Your task to perform on an android device: Show me productivity apps on the Play Store Image 0: 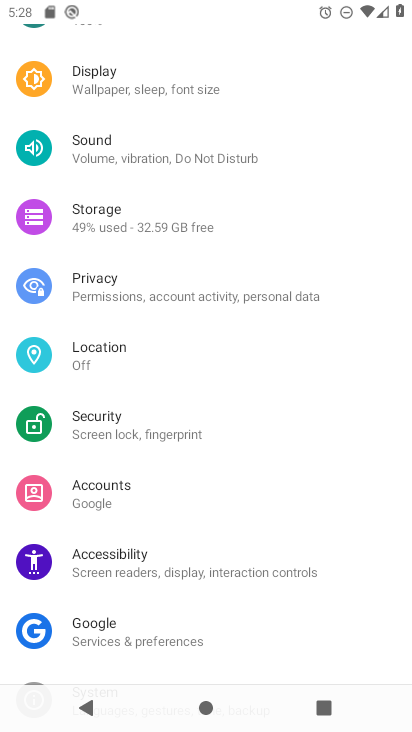
Step 0: press home button
Your task to perform on an android device: Show me productivity apps on the Play Store Image 1: 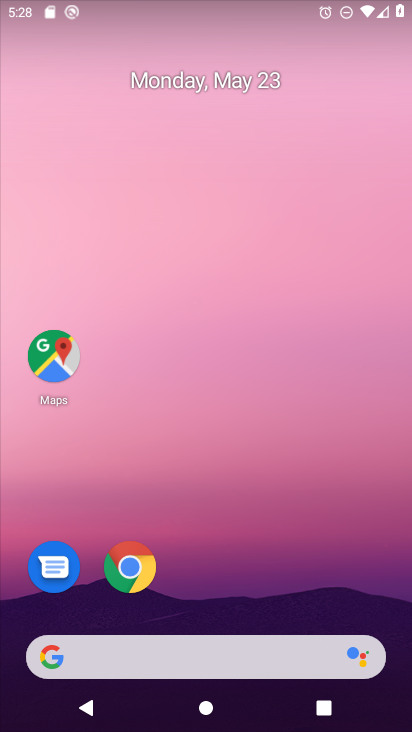
Step 1: drag from (246, 566) to (251, 64)
Your task to perform on an android device: Show me productivity apps on the Play Store Image 2: 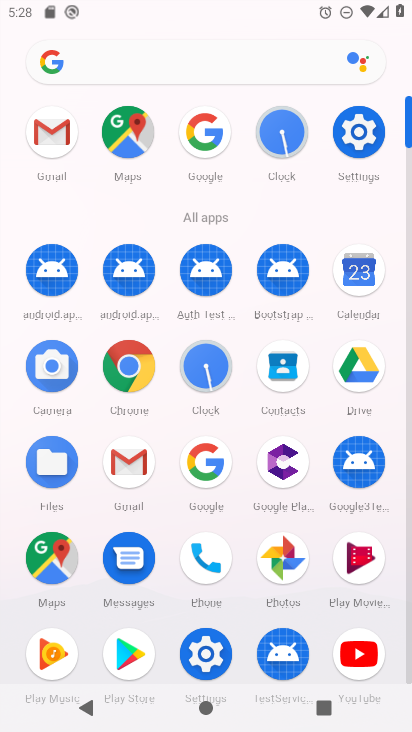
Step 2: click (133, 657)
Your task to perform on an android device: Show me productivity apps on the Play Store Image 3: 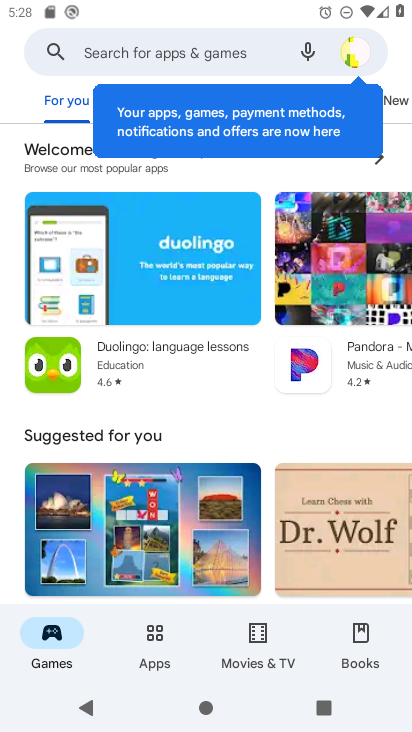
Step 3: click (154, 636)
Your task to perform on an android device: Show me productivity apps on the Play Store Image 4: 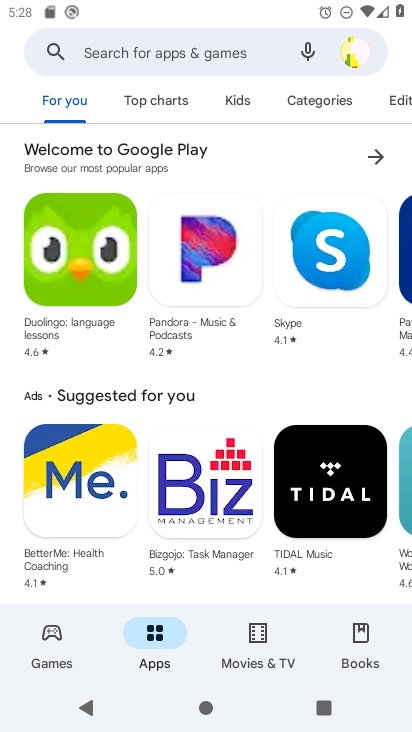
Step 4: click (327, 96)
Your task to perform on an android device: Show me productivity apps on the Play Store Image 5: 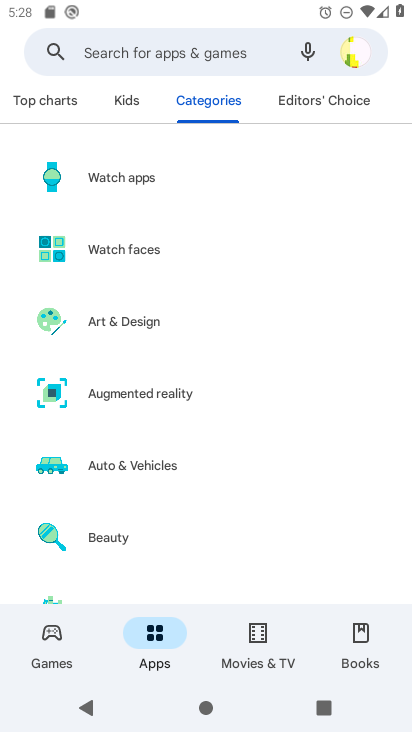
Step 5: drag from (116, 376) to (147, 298)
Your task to perform on an android device: Show me productivity apps on the Play Store Image 6: 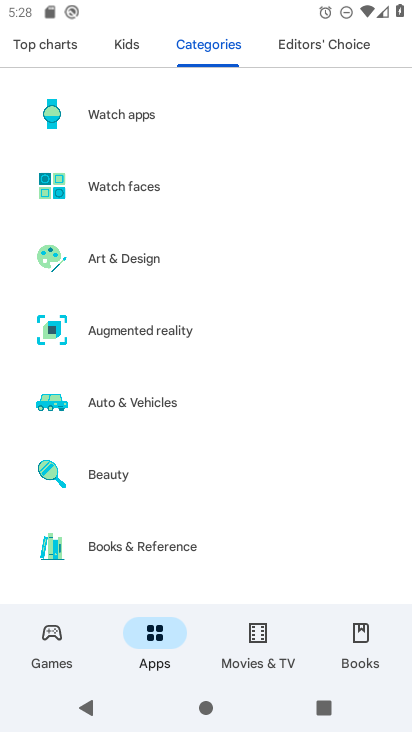
Step 6: drag from (99, 372) to (159, 284)
Your task to perform on an android device: Show me productivity apps on the Play Store Image 7: 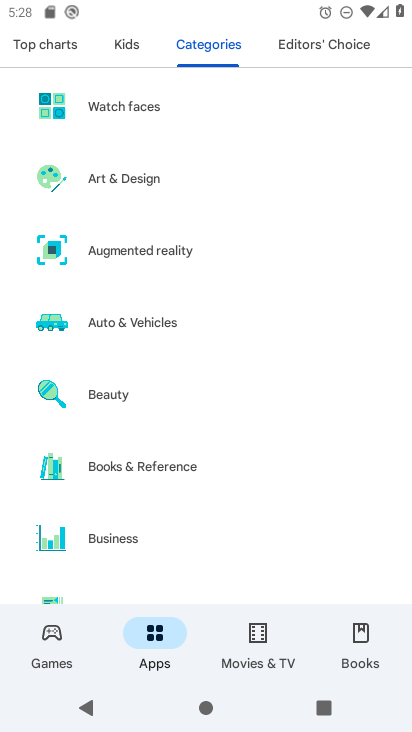
Step 7: drag from (108, 359) to (163, 277)
Your task to perform on an android device: Show me productivity apps on the Play Store Image 8: 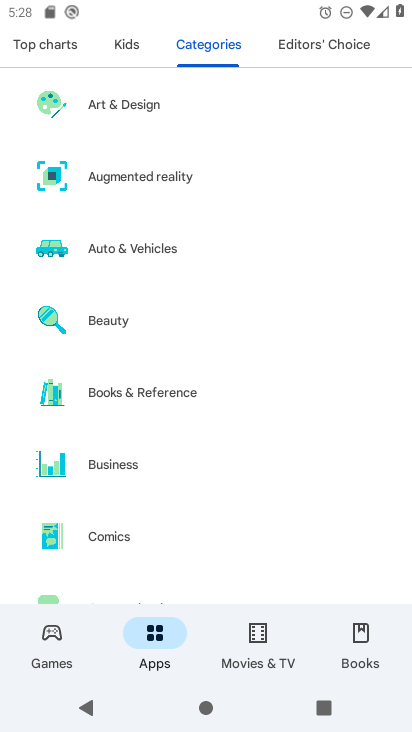
Step 8: drag from (111, 358) to (154, 282)
Your task to perform on an android device: Show me productivity apps on the Play Store Image 9: 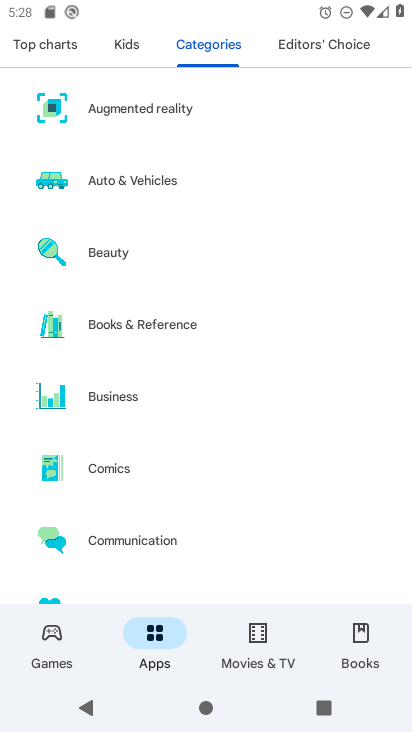
Step 9: drag from (98, 361) to (151, 278)
Your task to perform on an android device: Show me productivity apps on the Play Store Image 10: 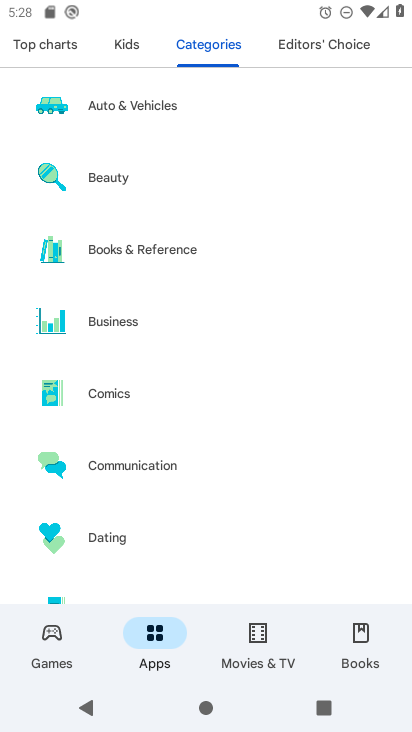
Step 10: drag from (118, 349) to (167, 273)
Your task to perform on an android device: Show me productivity apps on the Play Store Image 11: 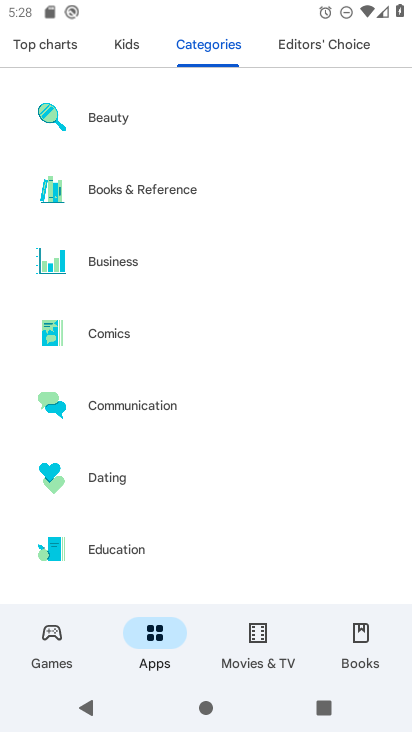
Step 11: drag from (106, 374) to (157, 293)
Your task to perform on an android device: Show me productivity apps on the Play Store Image 12: 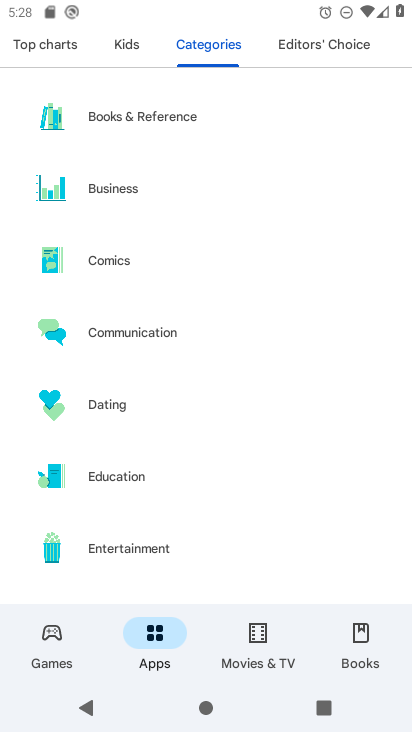
Step 12: drag from (113, 371) to (168, 287)
Your task to perform on an android device: Show me productivity apps on the Play Store Image 13: 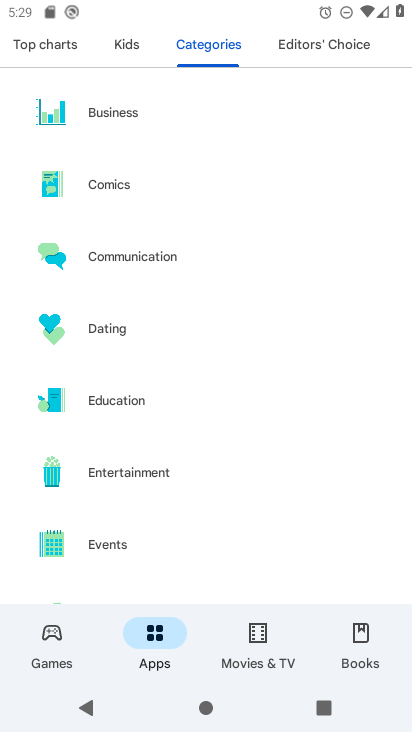
Step 13: drag from (105, 363) to (171, 269)
Your task to perform on an android device: Show me productivity apps on the Play Store Image 14: 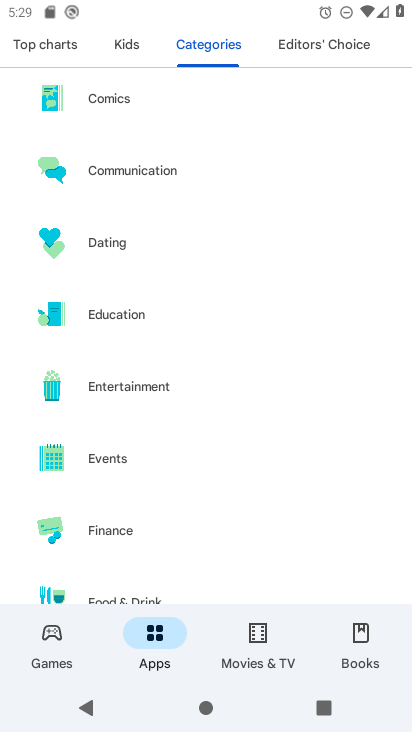
Step 14: drag from (103, 362) to (186, 266)
Your task to perform on an android device: Show me productivity apps on the Play Store Image 15: 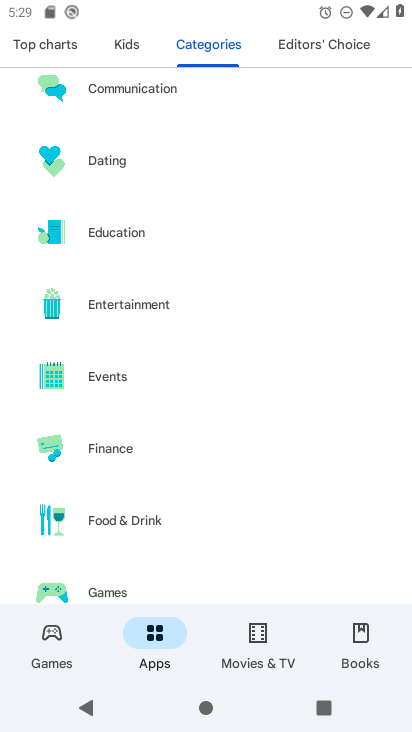
Step 15: drag from (102, 414) to (178, 321)
Your task to perform on an android device: Show me productivity apps on the Play Store Image 16: 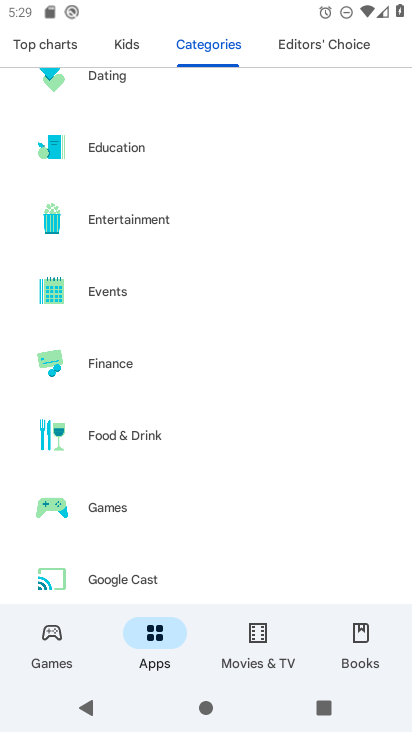
Step 16: drag from (105, 408) to (180, 313)
Your task to perform on an android device: Show me productivity apps on the Play Store Image 17: 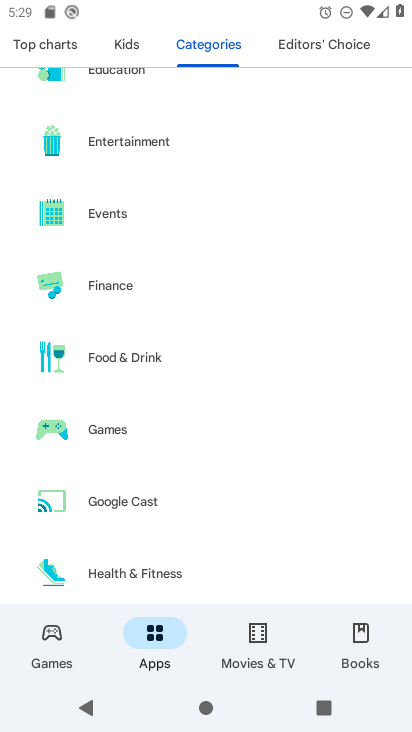
Step 17: drag from (108, 397) to (165, 318)
Your task to perform on an android device: Show me productivity apps on the Play Store Image 18: 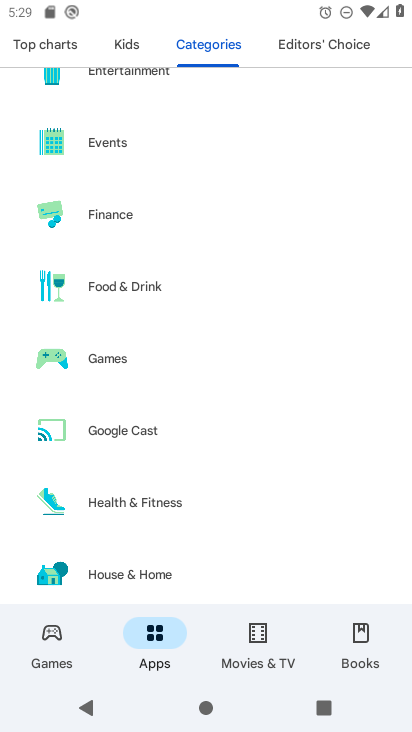
Step 18: drag from (101, 385) to (153, 304)
Your task to perform on an android device: Show me productivity apps on the Play Store Image 19: 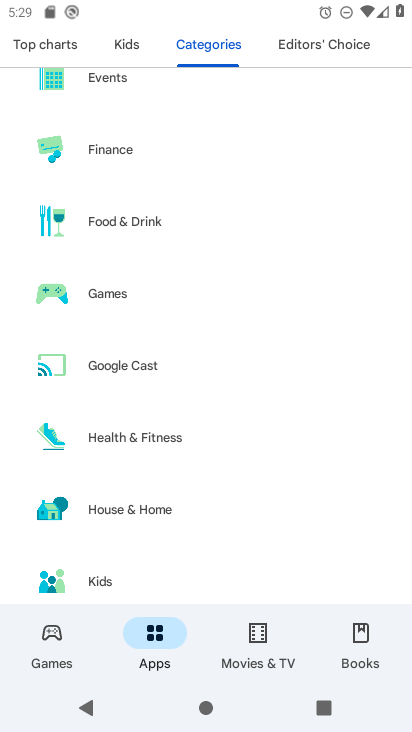
Step 19: drag from (103, 409) to (180, 309)
Your task to perform on an android device: Show me productivity apps on the Play Store Image 20: 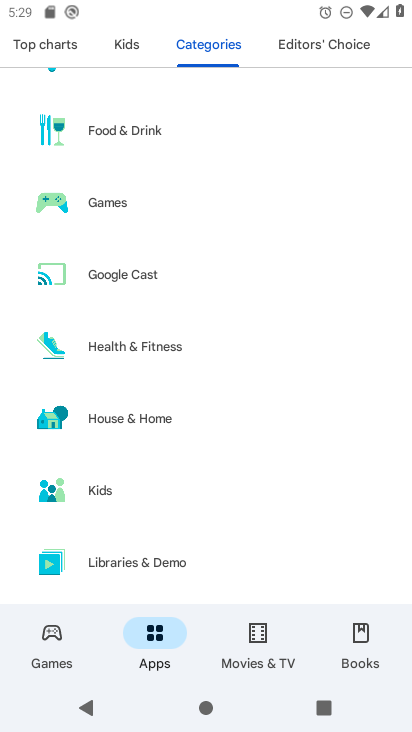
Step 20: drag from (109, 398) to (178, 298)
Your task to perform on an android device: Show me productivity apps on the Play Store Image 21: 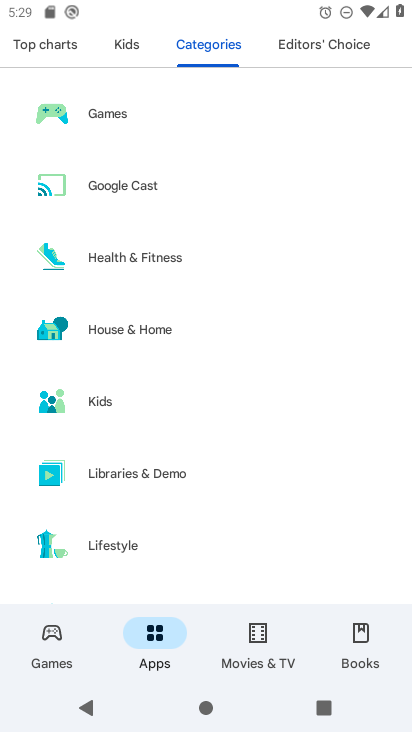
Step 21: drag from (105, 367) to (181, 281)
Your task to perform on an android device: Show me productivity apps on the Play Store Image 22: 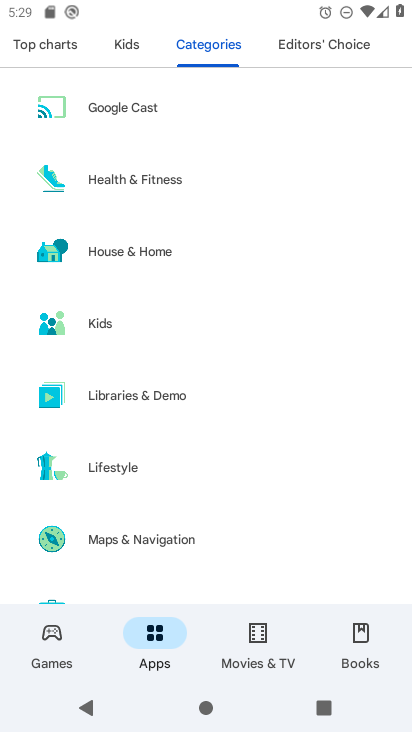
Step 22: drag from (101, 366) to (174, 295)
Your task to perform on an android device: Show me productivity apps on the Play Store Image 23: 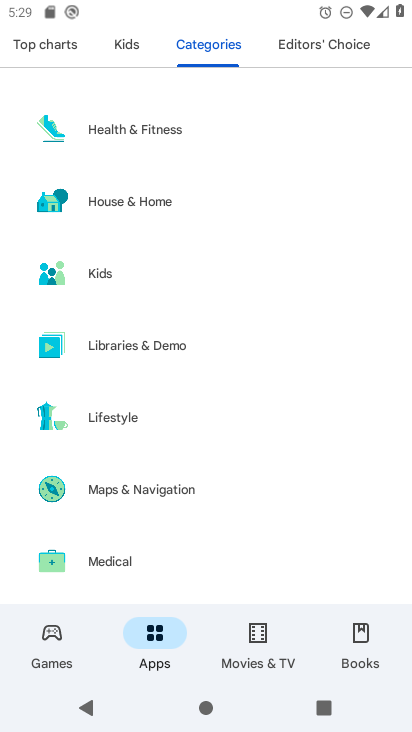
Step 23: drag from (96, 379) to (164, 288)
Your task to perform on an android device: Show me productivity apps on the Play Store Image 24: 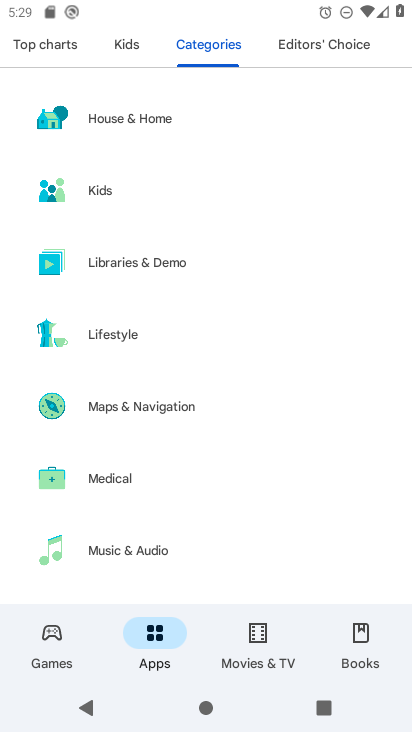
Step 24: drag from (105, 376) to (160, 294)
Your task to perform on an android device: Show me productivity apps on the Play Store Image 25: 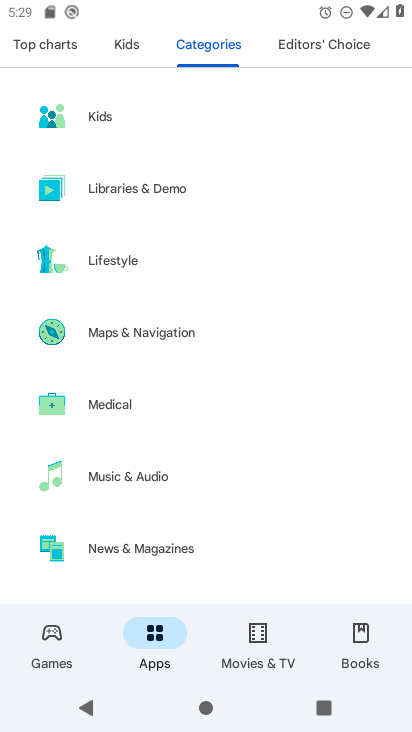
Step 25: drag from (104, 379) to (174, 281)
Your task to perform on an android device: Show me productivity apps on the Play Store Image 26: 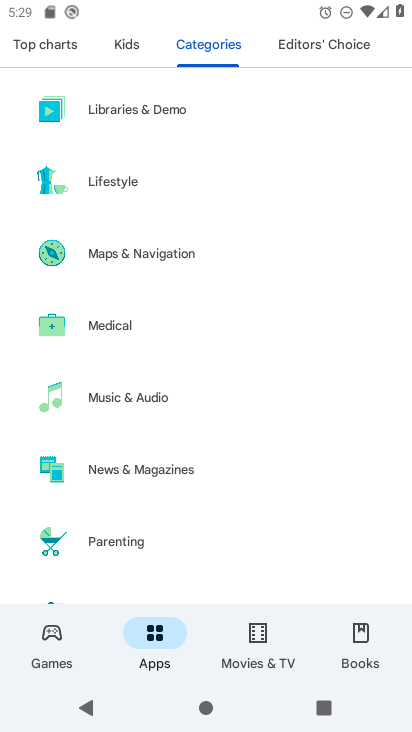
Step 26: drag from (110, 366) to (192, 272)
Your task to perform on an android device: Show me productivity apps on the Play Store Image 27: 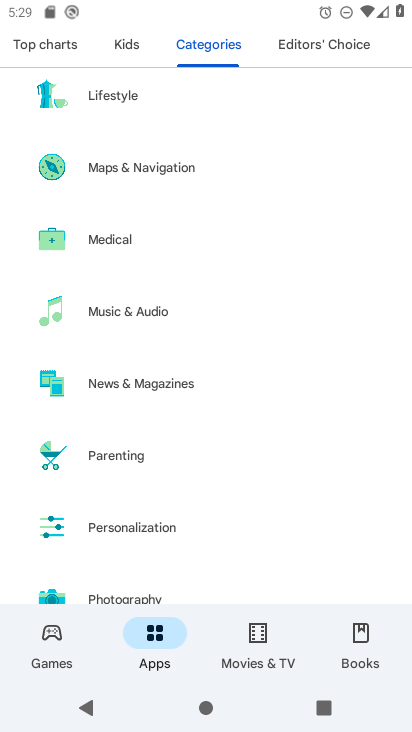
Step 27: drag from (123, 353) to (188, 275)
Your task to perform on an android device: Show me productivity apps on the Play Store Image 28: 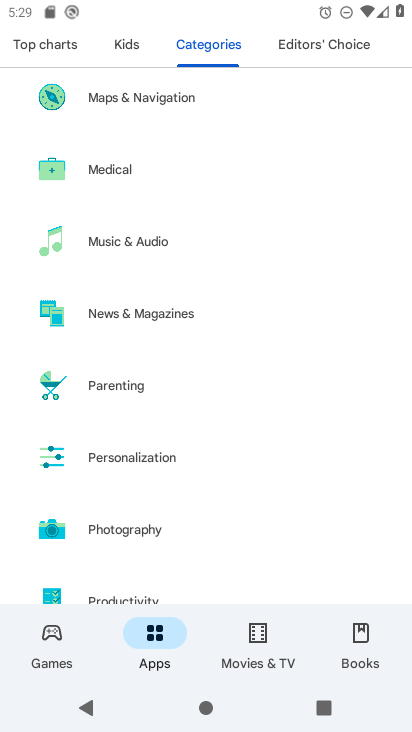
Step 28: drag from (108, 357) to (187, 260)
Your task to perform on an android device: Show me productivity apps on the Play Store Image 29: 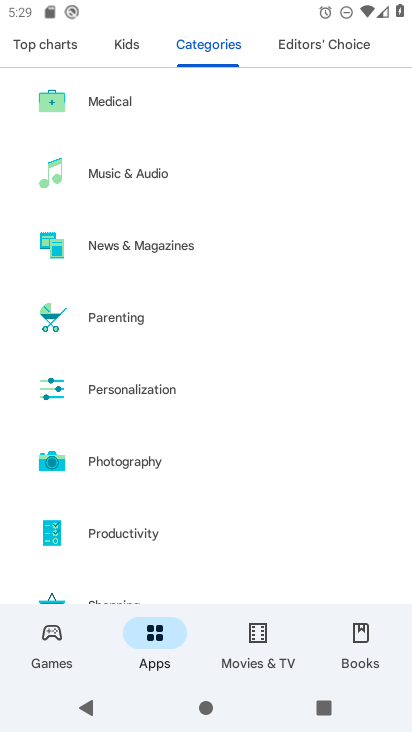
Step 29: drag from (97, 359) to (183, 268)
Your task to perform on an android device: Show me productivity apps on the Play Store Image 30: 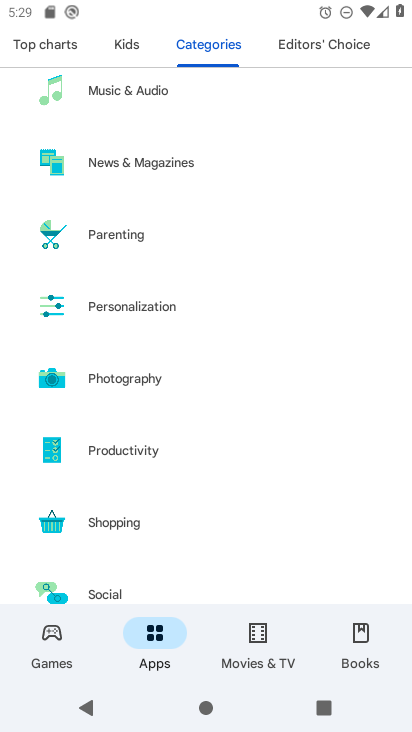
Step 30: click (111, 453)
Your task to perform on an android device: Show me productivity apps on the Play Store Image 31: 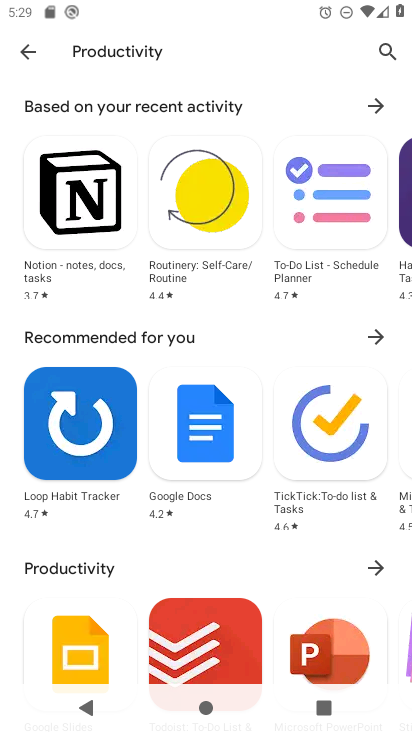
Step 31: task complete